Your task to perform on an android device: Open the web browser Image 0: 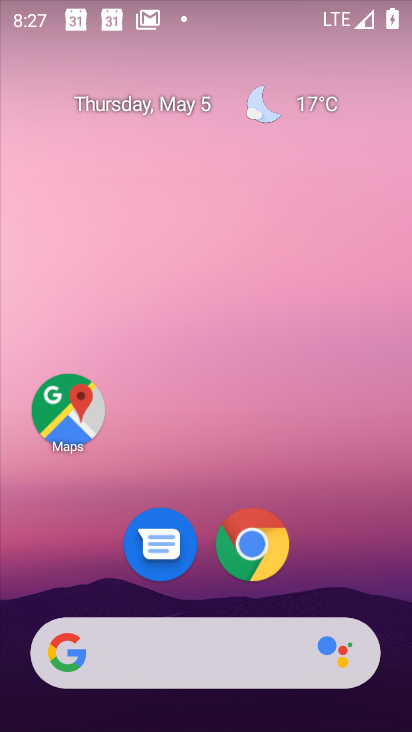
Step 0: click (282, 563)
Your task to perform on an android device: Open the web browser Image 1: 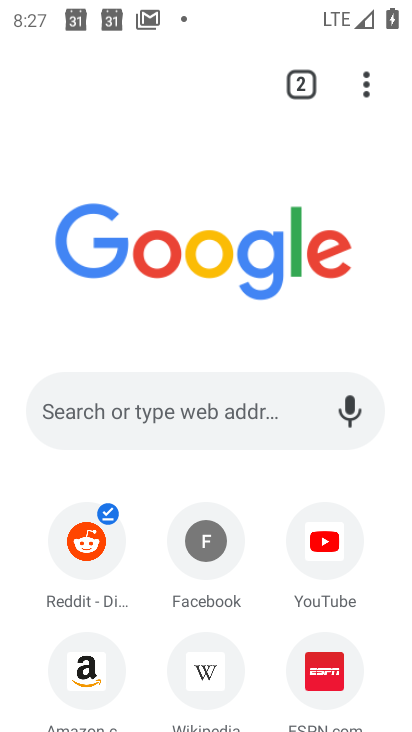
Step 1: task complete